Your task to perform on an android device: toggle airplane mode Image 0: 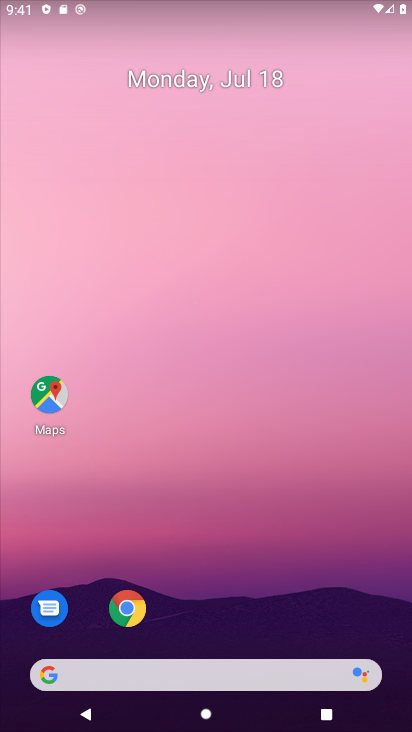
Step 0: drag from (245, 519) to (224, 227)
Your task to perform on an android device: toggle airplane mode Image 1: 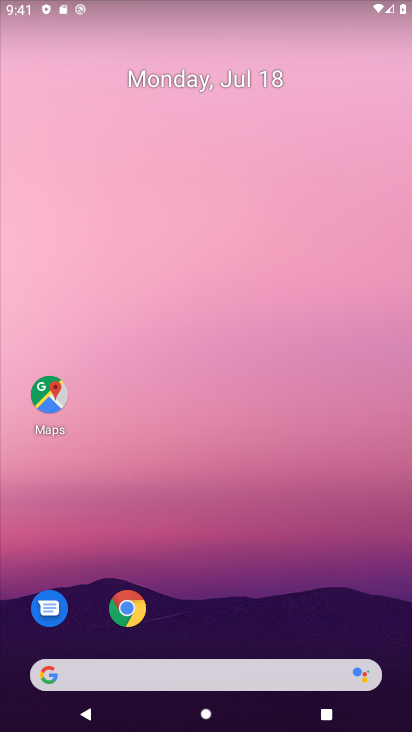
Step 1: drag from (248, 473) to (230, 210)
Your task to perform on an android device: toggle airplane mode Image 2: 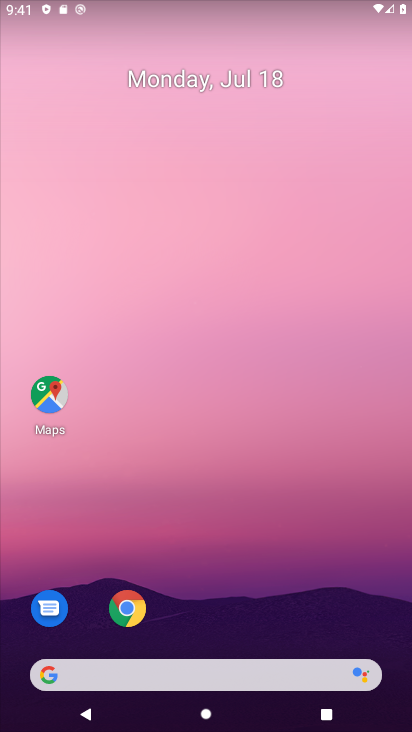
Step 2: drag from (265, 663) to (144, 67)
Your task to perform on an android device: toggle airplane mode Image 3: 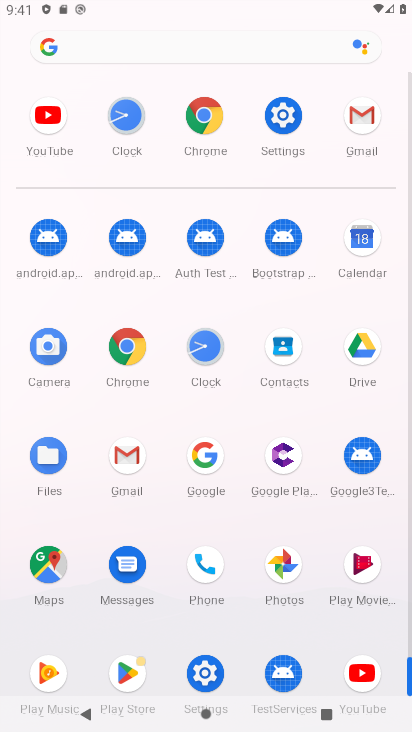
Step 3: click (284, 121)
Your task to perform on an android device: toggle airplane mode Image 4: 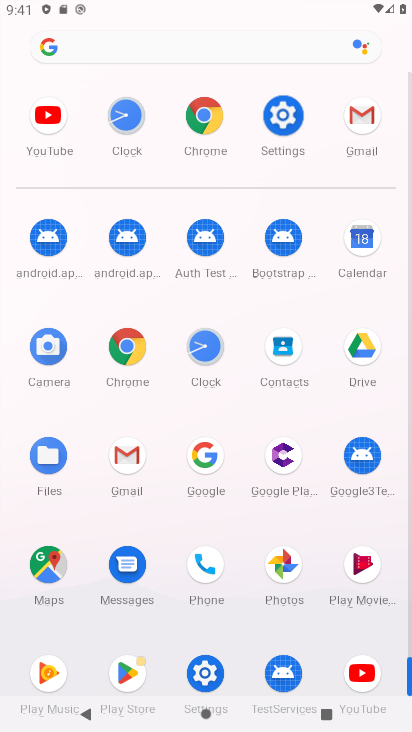
Step 4: click (284, 121)
Your task to perform on an android device: toggle airplane mode Image 5: 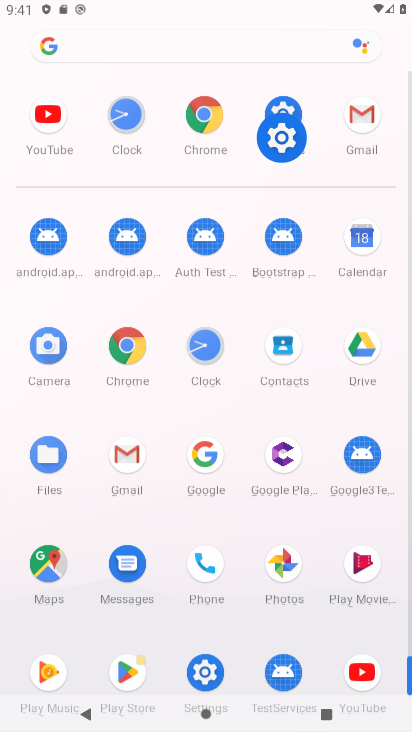
Step 5: click (284, 118)
Your task to perform on an android device: toggle airplane mode Image 6: 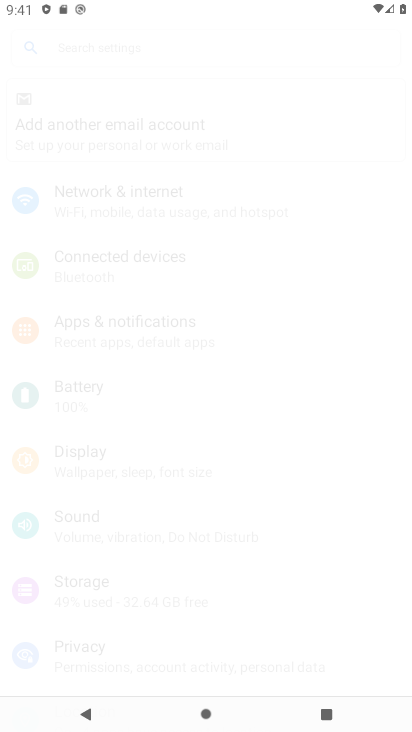
Step 6: click (285, 116)
Your task to perform on an android device: toggle airplane mode Image 7: 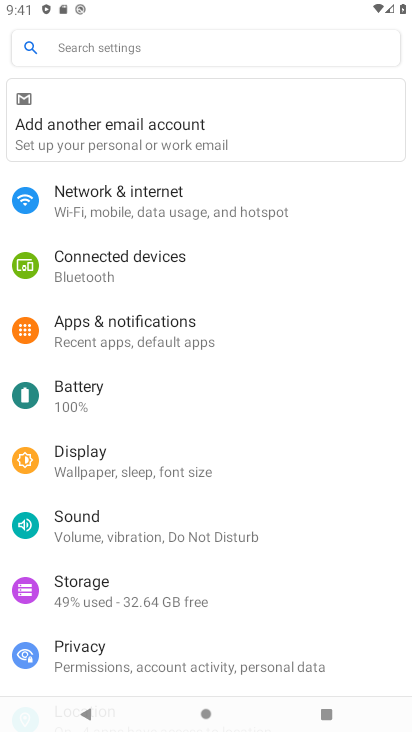
Step 7: click (104, 127)
Your task to perform on an android device: toggle airplane mode Image 8: 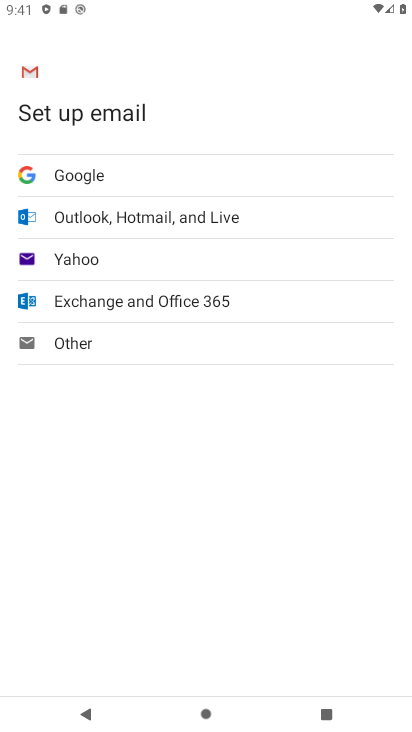
Step 8: click (126, 201)
Your task to perform on an android device: toggle airplane mode Image 9: 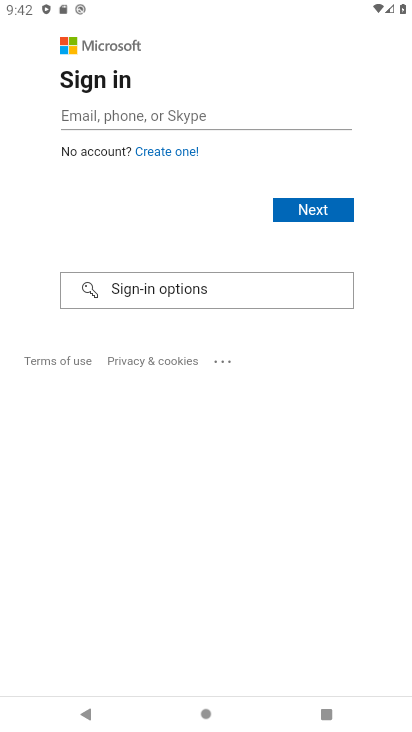
Step 9: press back button
Your task to perform on an android device: toggle airplane mode Image 10: 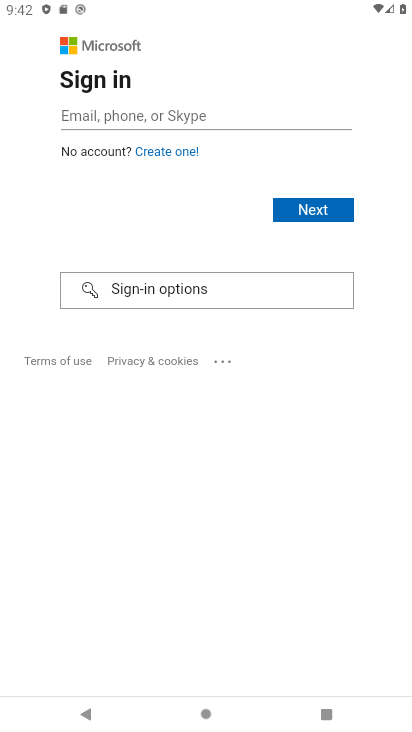
Step 10: press back button
Your task to perform on an android device: toggle airplane mode Image 11: 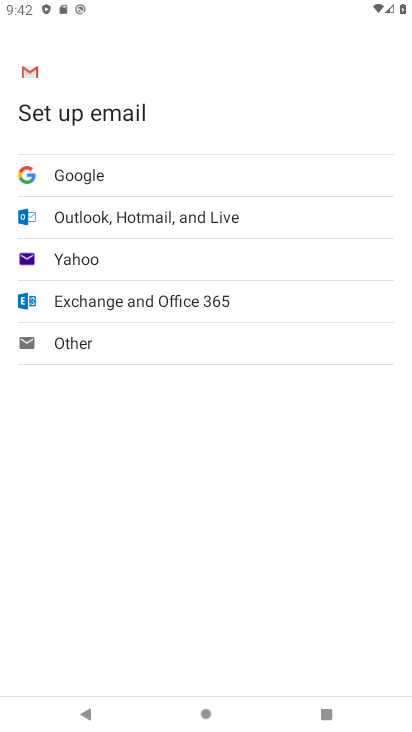
Step 11: press back button
Your task to perform on an android device: toggle airplane mode Image 12: 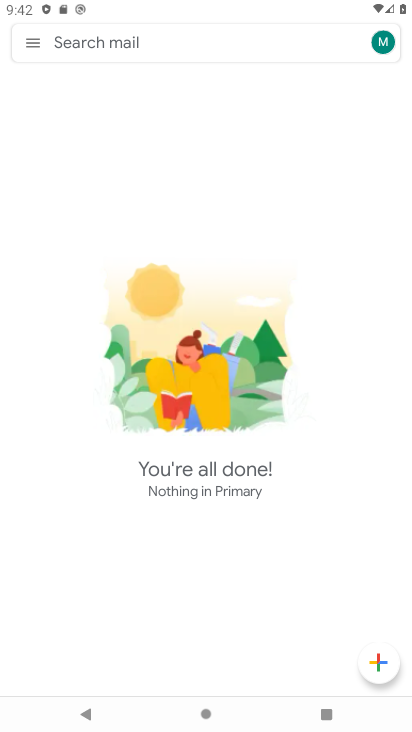
Step 12: press home button
Your task to perform on an android device: toggle airplane mode Image 13: 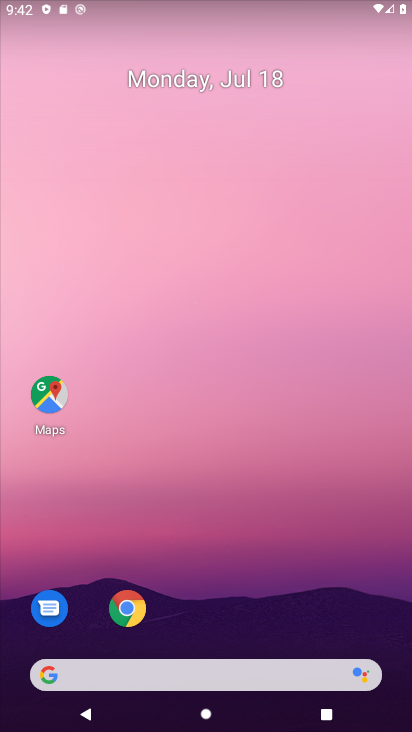
Step 13: click (292, 434)
Your task to perform on an android device: toggle airplane mode Image 14: 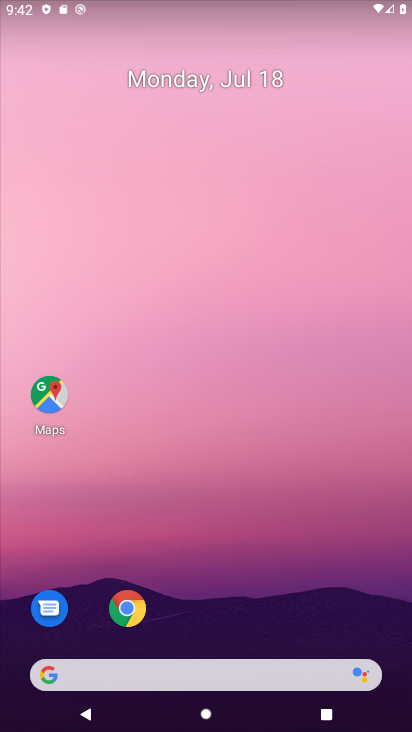
Step 14: drag from (230, 491) to (188, 34)
Your task to perform on an android device: toggle airplane mode Image 15: 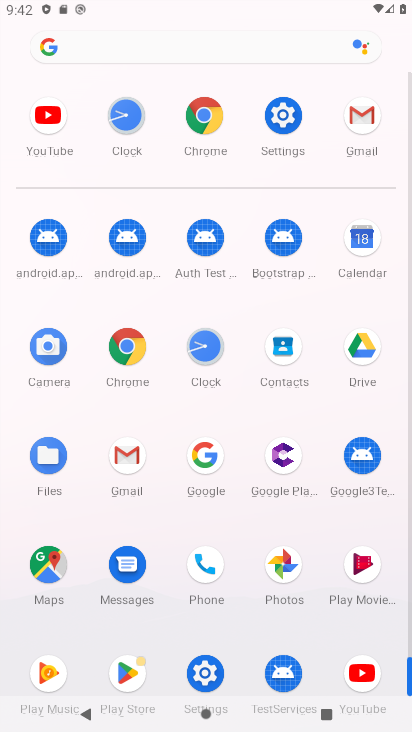
Step 15: click (294, 114)
Your task to perform on an android device: toggle airplane mode Image 16: 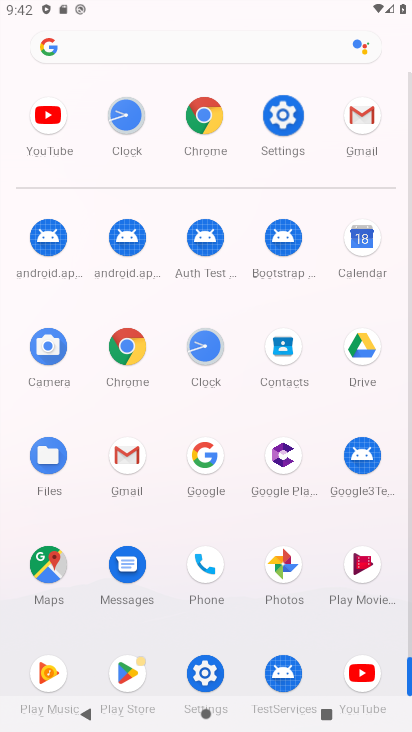
Step 16: click (291, 114)
Your task to perform on an android device: toggle airplane mode Image 17: 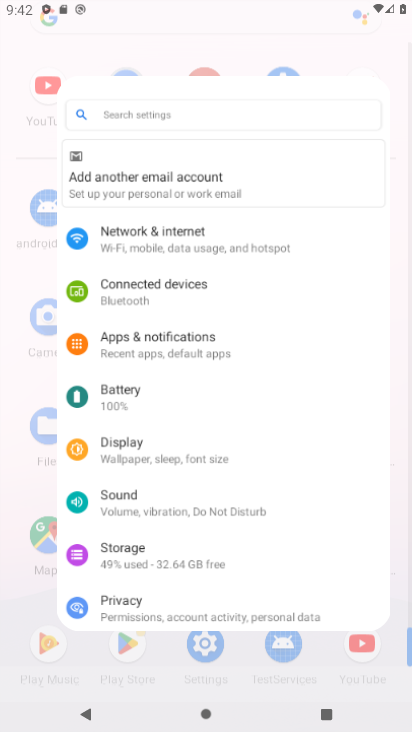
Step 17: click (291, 114)
Your task to perform on an android device: toggle airplane mode Image 18: 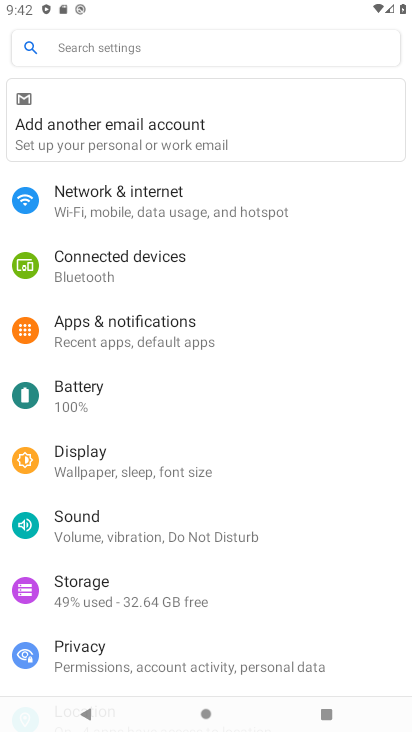
Step 18: click (154, 203)
Your task to perform on an android device: toggle airplane mode Image 19: 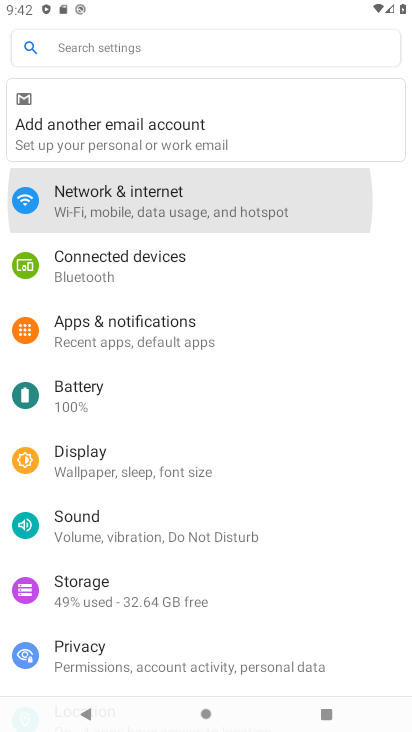
Step 19: click (153, 200)
Your task to perform on an android device: toggle airplane mode Image 20: 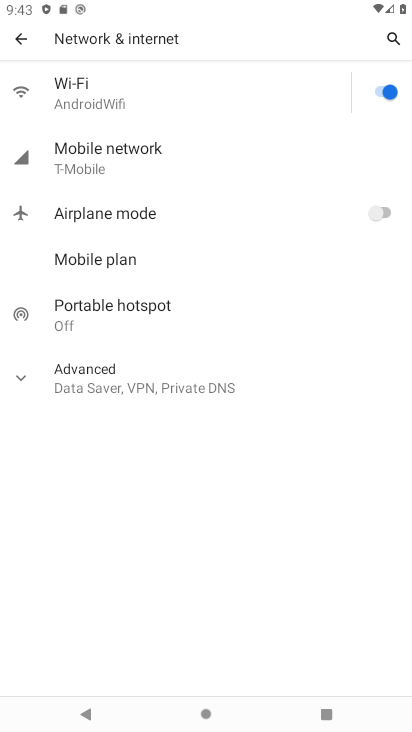
Step 20: click (381, 204)
Your task to perform on an android device: toggle airplane mode Image 21: 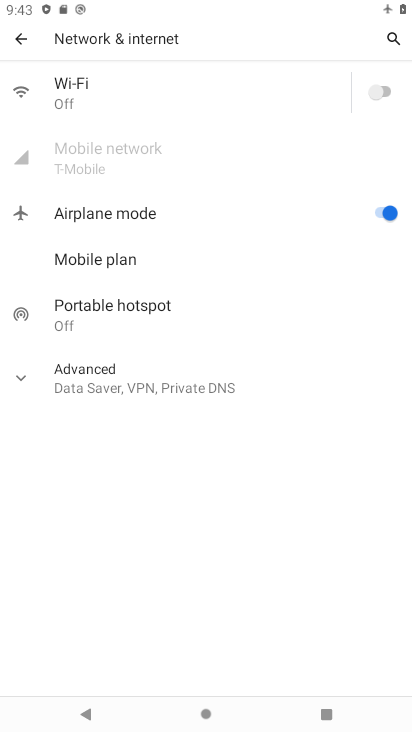
Step 21: task complete